Your task to perform on an android device: Search for seafood restaurants on Google Maps Image 0: 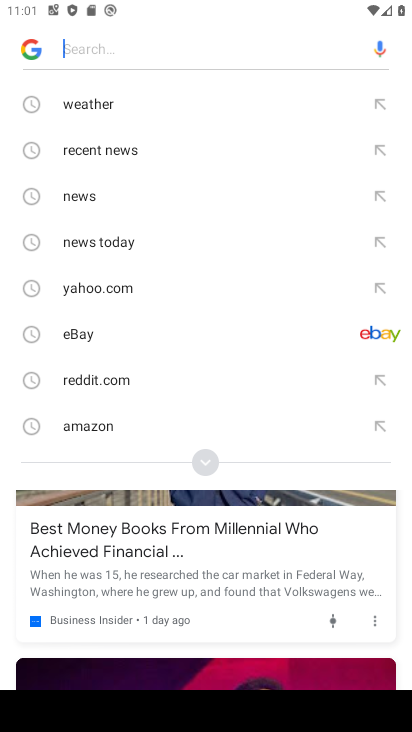
Step 0: press back button
Your task to perform on an android device: Search for seafood restaurants on Google Maps Image 1: 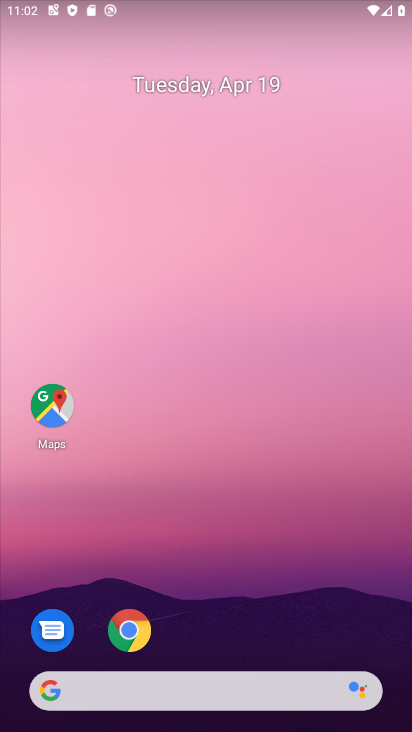
Step 1: click (54, 405)
Your task to perform on an android device: Search for seafood restaurants on Google Maps Image 2: 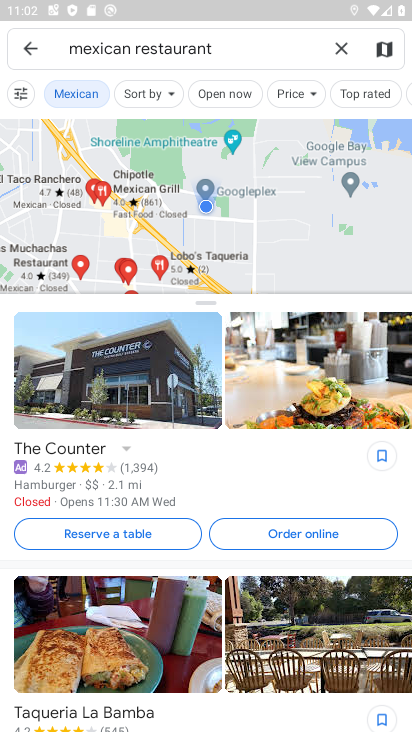
Step 2: click (336, 52)
Your task to perform on an android device: Search for seafood restaurants on Google Maps Image 3: 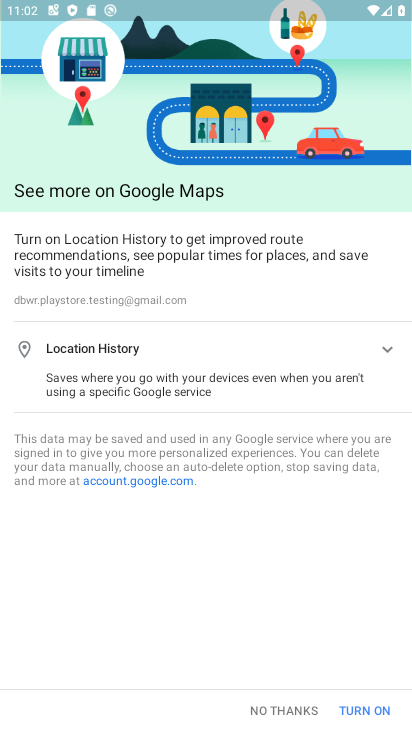
Step 3: click (285, 710)
Your task to perform on an android device: Search for seafood restaurants on Google Maps Image 4: 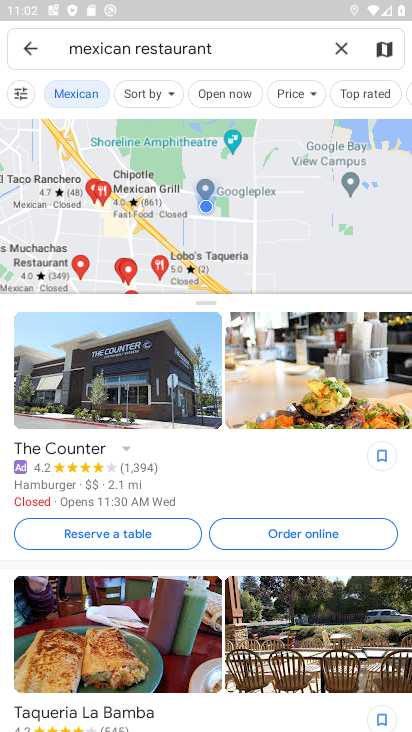
Step 4: click (345, 46)
Your task to perform on an android device: Search for seafood restaurants on Google Maps Image 5: 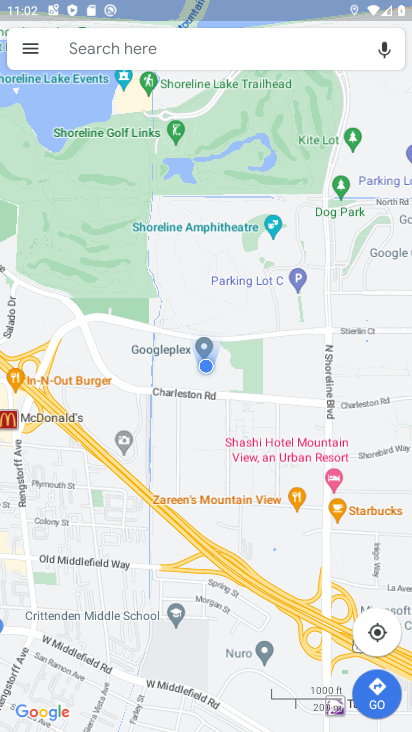
Step 5: click (221, 36)
Your task to perform on an android device: Search for seafood restaurants on Google Maps Image 6: 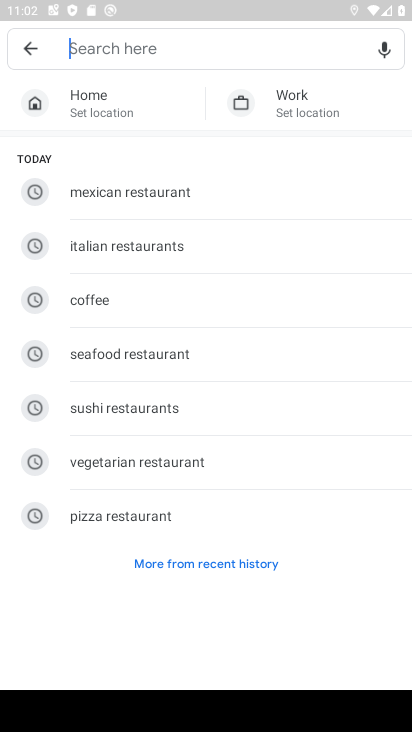
Step 6: click (181, 347)
Your task to perform on an android device: Search for seafood restaurants on Google Maps Image 7: 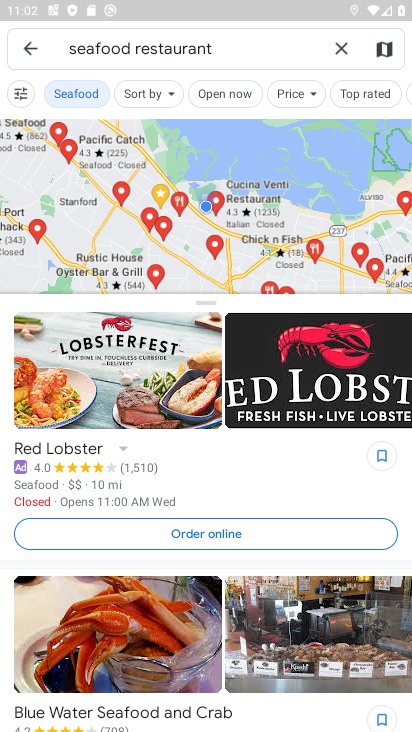
Step 7: task complete